Your task to perform on an android device: Go to CNN.com Image 0: 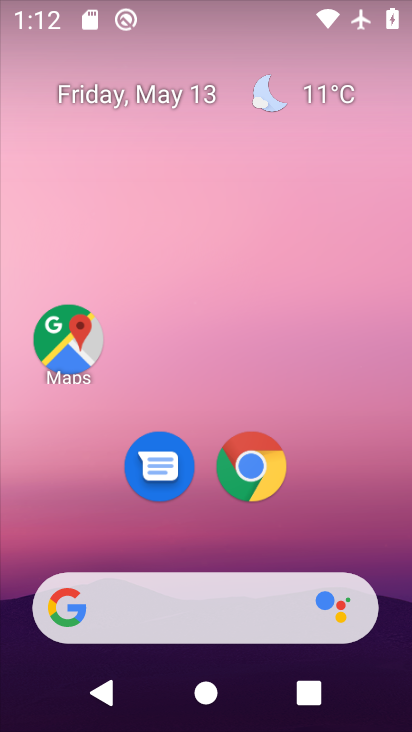
Step 0: click (252, 478)
Your task to perform on an android device: Go to CNN.com Image 1: 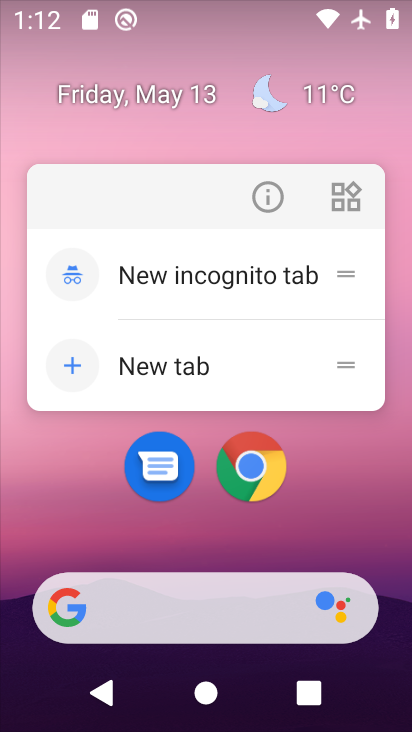
Step 1: click (252, 478)
Your task to perform on an android device: Go to CNN.com Image 2: 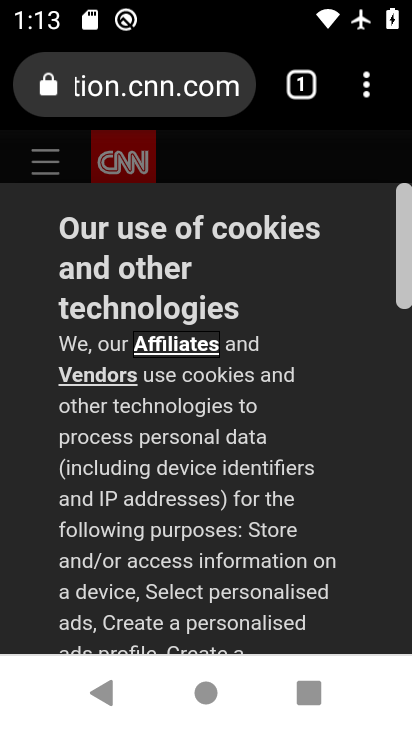
Step 2: task complete